Your task to perform on an android device: change the clock style Image 0: 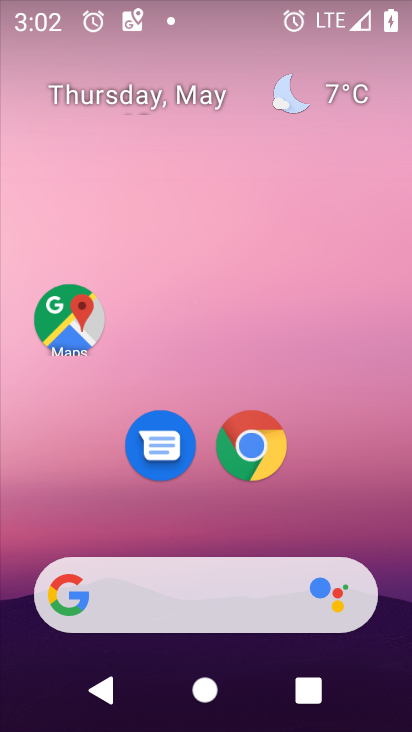
Step 0: drag from (356, 526) to (352, 0)
Your task to perform on an android device: change the clock style Image 1: 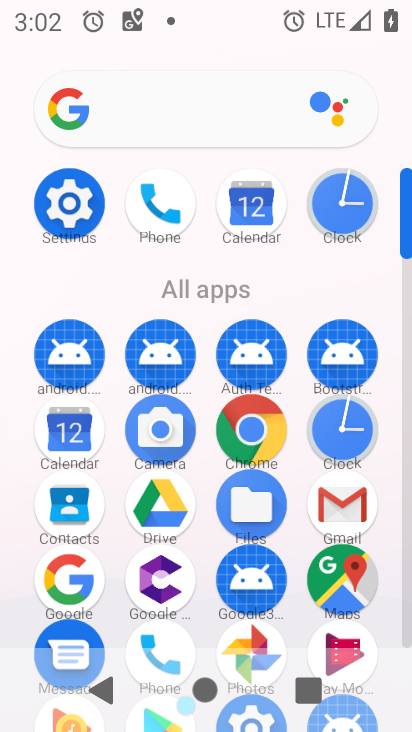
Step 1: click (349, 214)
Your task to perform on an android device: change the clock style Image 2: 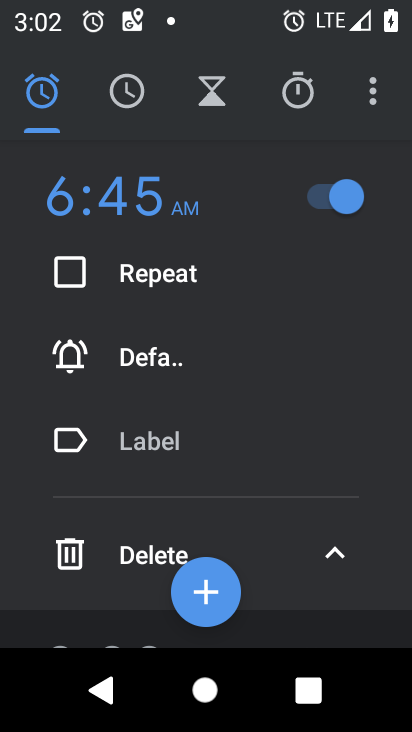
Step 2: click (375, 94)
Your task to perform on an android device: change the clock style Image 3: 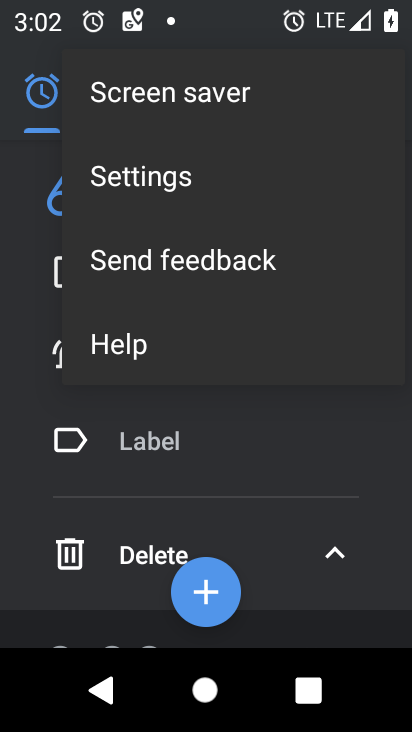
Step 3: click (161, 187)
Your task to perform on an android device: change the clock style Image 4: 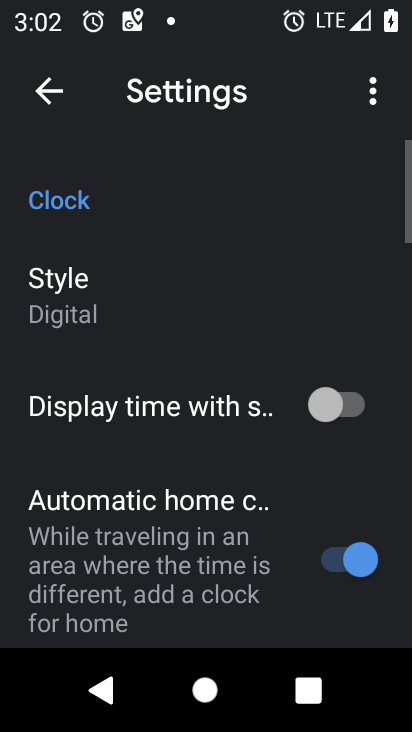
Step 4: click (62, 314)
Your task to perform on an android device: change the clock style Image 5: 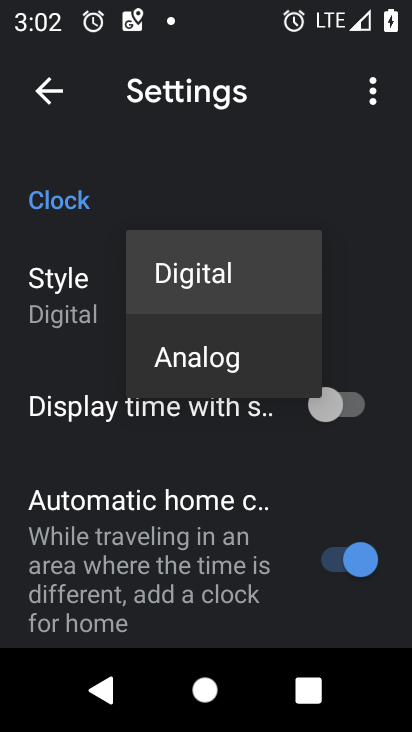
Step 5: click (170, 360)
Your task to perform on an android device: change the clock style Image 6: 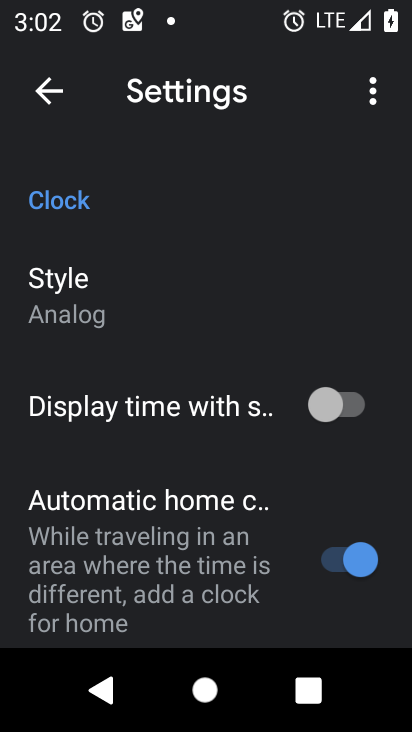
Step 6: task complete